Your task to perform on an android device: delete location history Image 0: 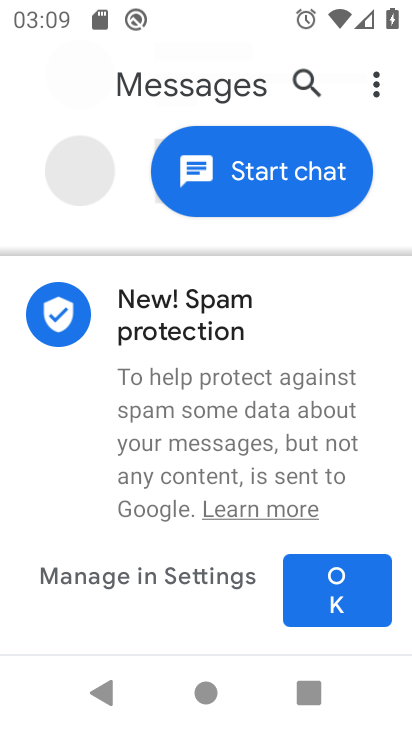
Step 0: press home button
Your task to perform on an android device: delete location history Image 1: 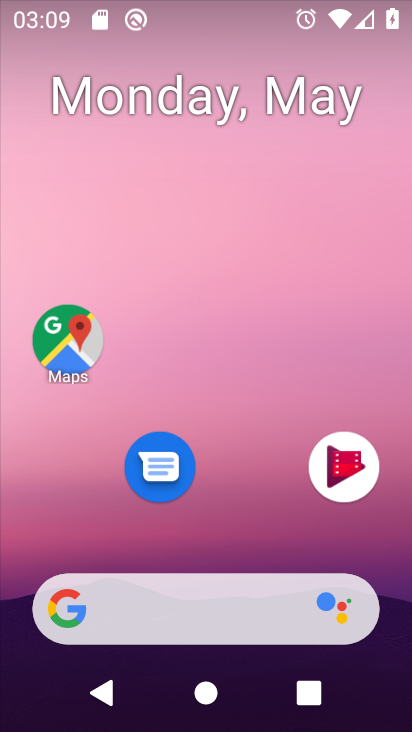
Step 1: drag from (226, 483) to (265, 203)
Your task to perform on an android device: delete location history Image 2: 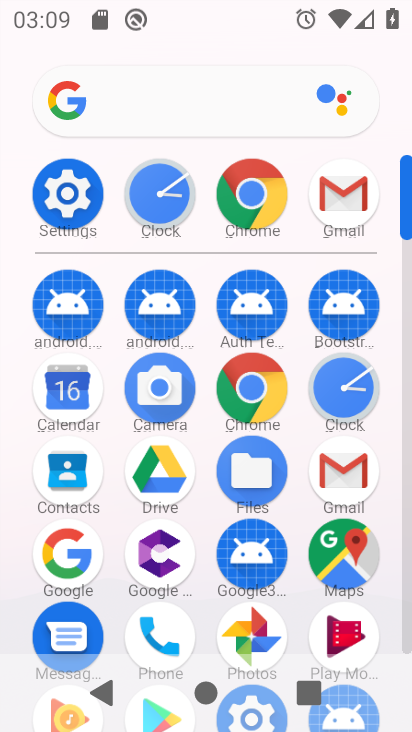
Step 2: click (330, 555)
Your task to perform on an android device: delete location history Image 3: 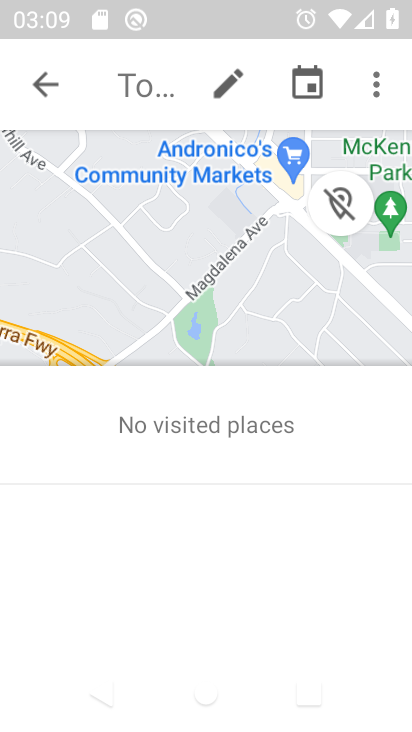
Step 3: click (366, 75)
Your task to perform on an android device: delete location history Image 4: 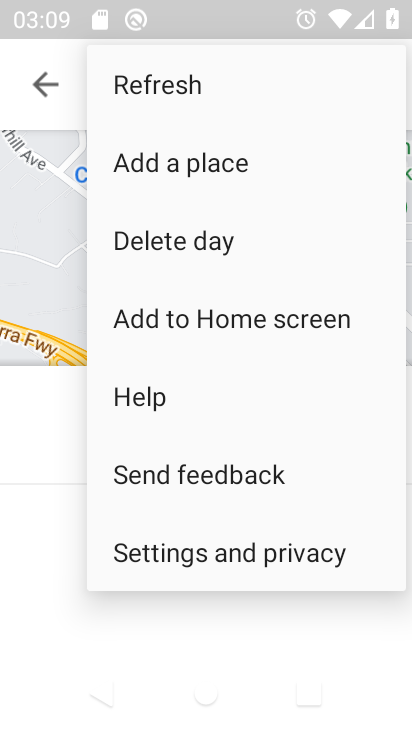
Step 4: click (182, 554)
Your task to perform on an android device: delete location history Image 5: 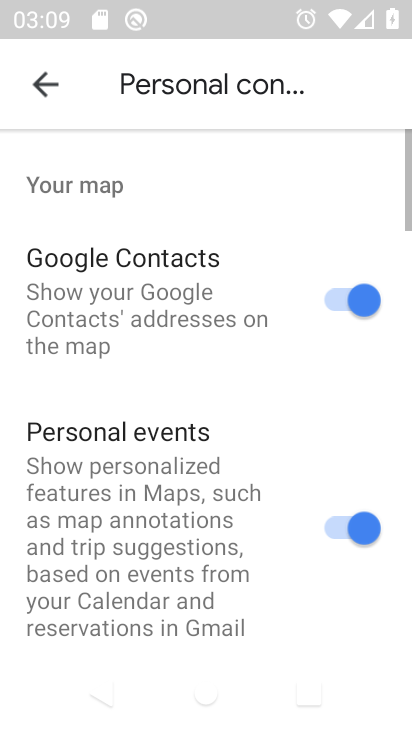
Step 5: drag from (192, 612) to (283, 211)
Your task to perform on an android device: delete location history Image 6: 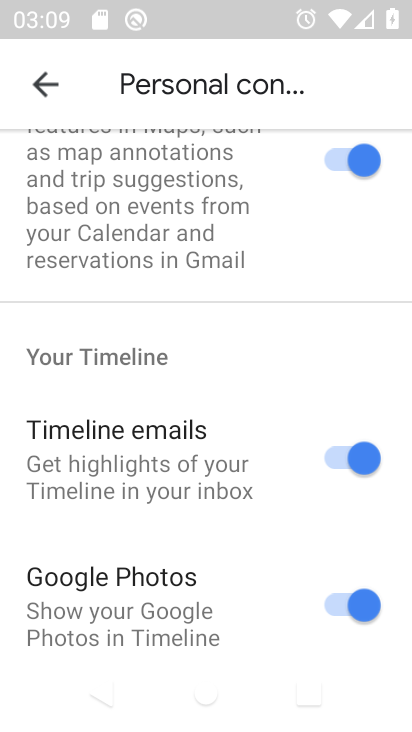
Step 6: drag from (156, 578) to (231, 200)
Your task to perform on an android device: delete location history Image 7: 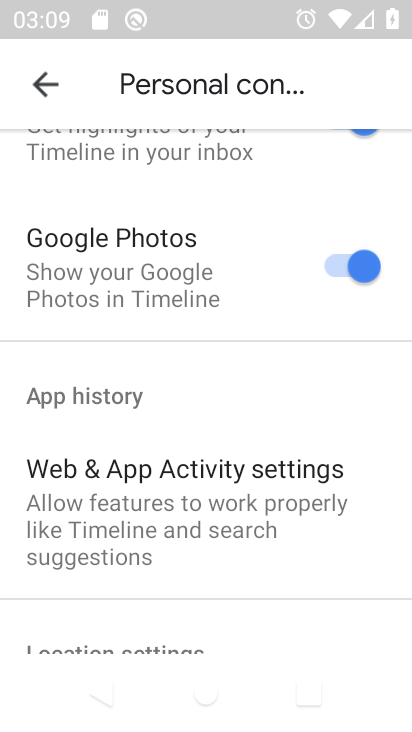
Step 7: drag from (181, 538) to (254, 227)
Your task to perform on an android device: delete location history Image 8: 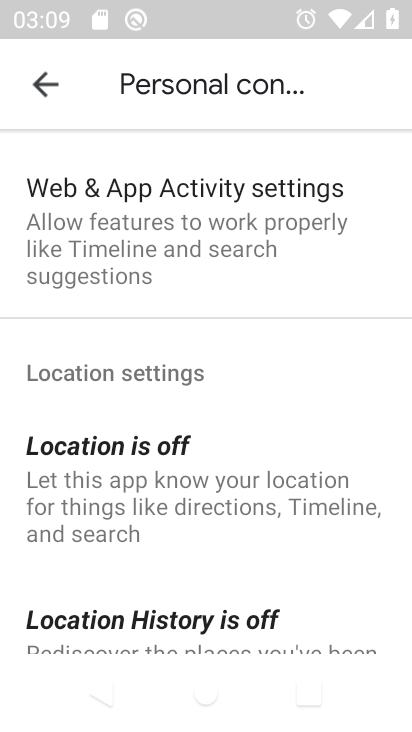
Step 8: click (129, 615)
Your task to perform on an android device: delete location history Image 9: 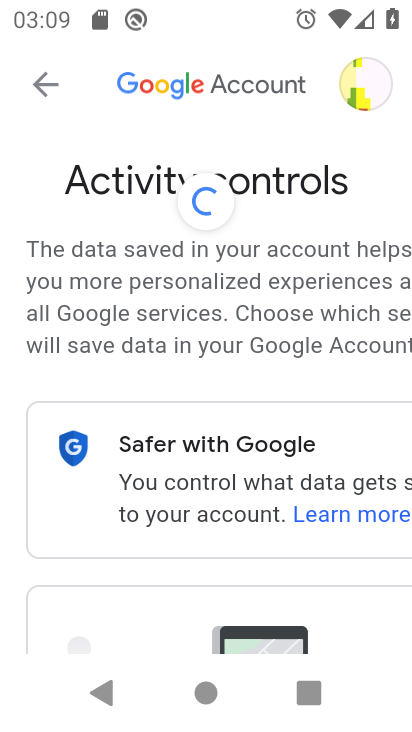
Step 9: drag from (301, 545) to (350, 149)
Your task to perform on an android device: delete location history Image 10: 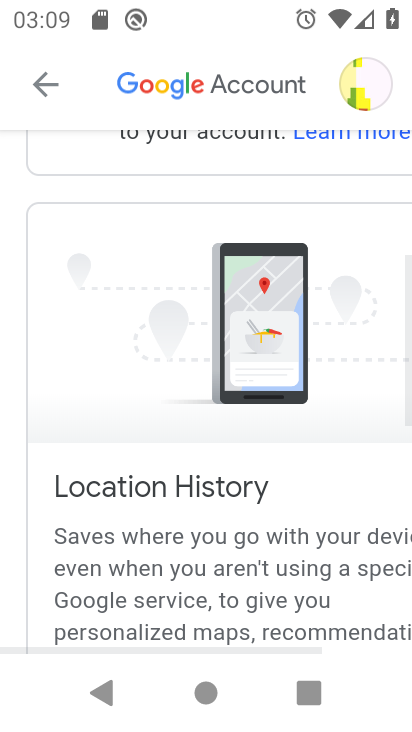
Step 10: drag from (242, 618) to (300, 219)
Your task to perform on an android device: delete location history Image 11: 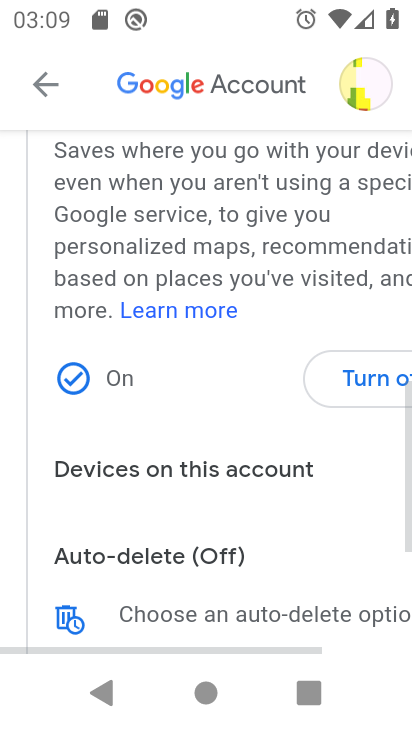
Step 11: drag from (276, 485) to (297, 340)
Your task to perform on an android device: delete location history Image 12: 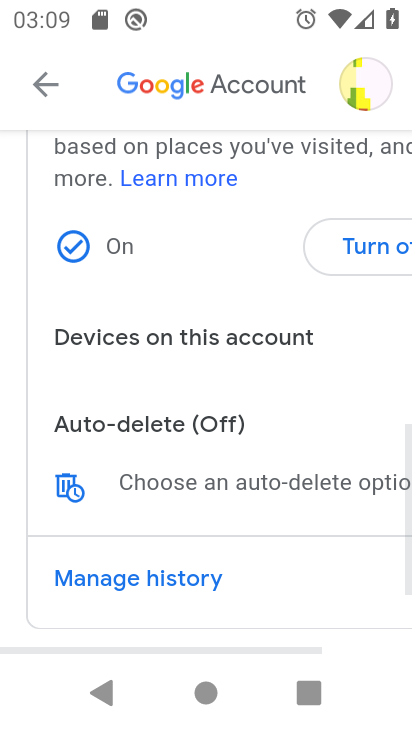
Step 12: click (341, 362)
Your task to perform on an android device: delete location history Image 13: 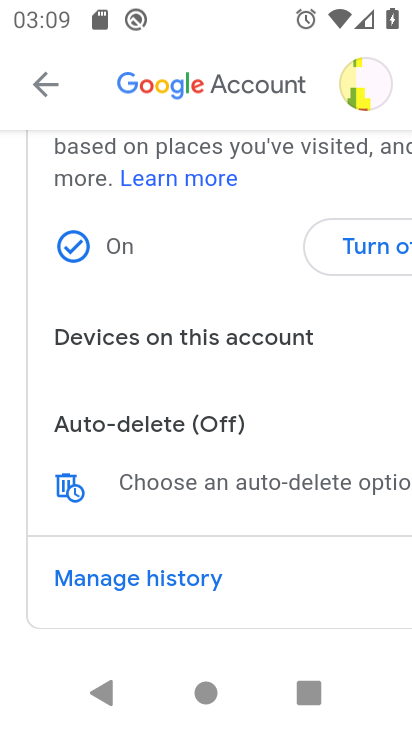
Step 13: click (337, 234)
Your task to perform on an android device: delete location history Image 14: 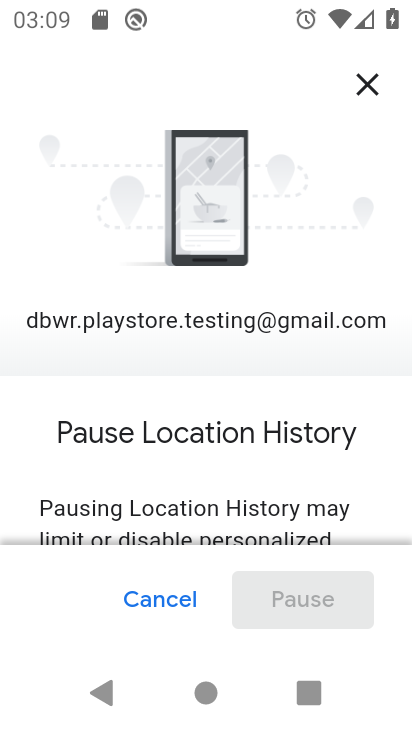
Step 14: click (370, 66)
Your task to perform on an android device: delete location history Image 15: 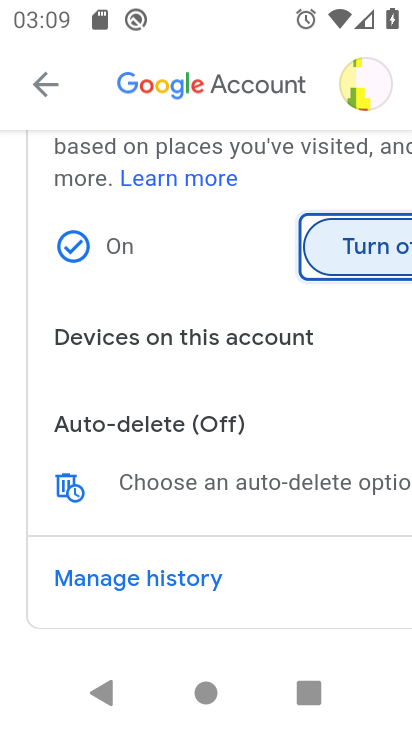
Step 15: click (30, 77)
Your task to perform on an android device: delete location history Image 16: 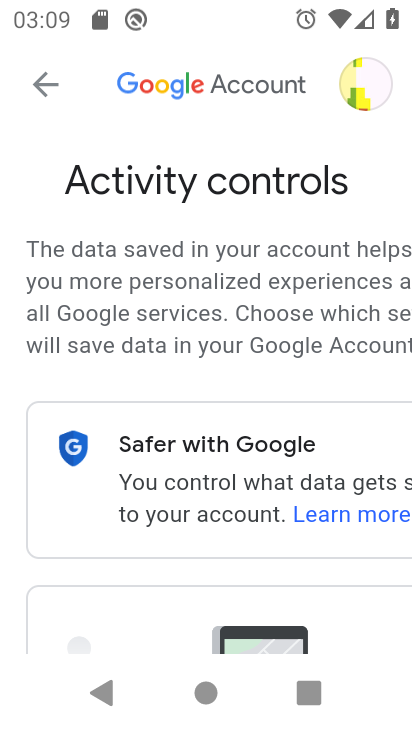
Step 16: click (38, 82)
Your task to perform on an android device: delete location history Image 17: 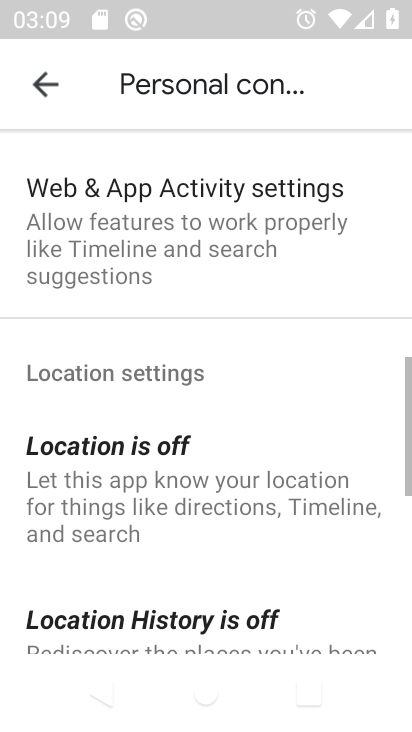
Step 17: drag from (162, 480) to (233, 225)
Your task to perform on an android device: delete location history Image 18: 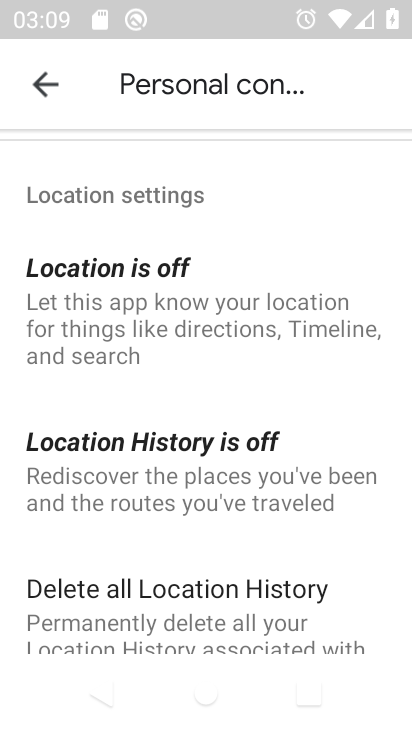
Step 18: click (180, 451)
Your task to perform on an android device: delete location history Image 19: 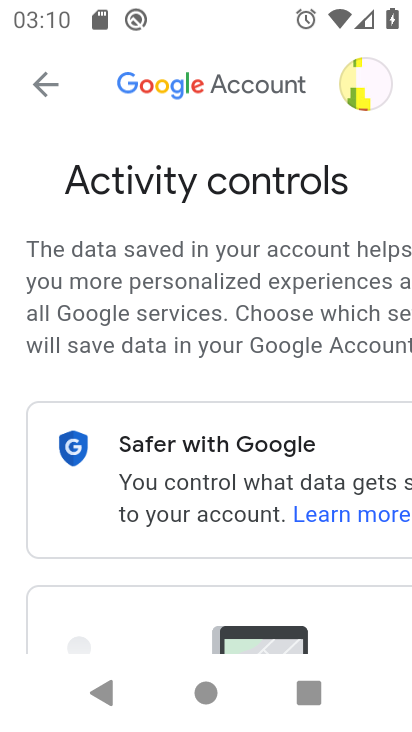
Step 19: drag from (280, 566) to (302, 215)
Your task to perform on an android device: delete location history Image 20: 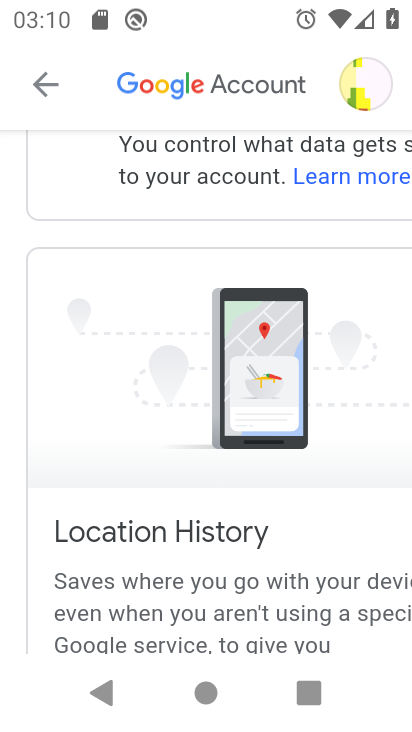
Step 20: drag from (266, 548) to (267, 130)
Your task to perform on an android device: delete location history Image 21: 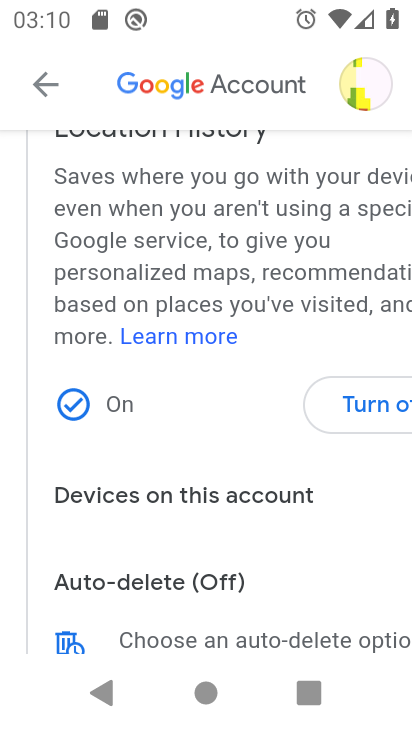
Step 21: click (333, 392)
Your task to perform on an android device: delete location history Image 22: 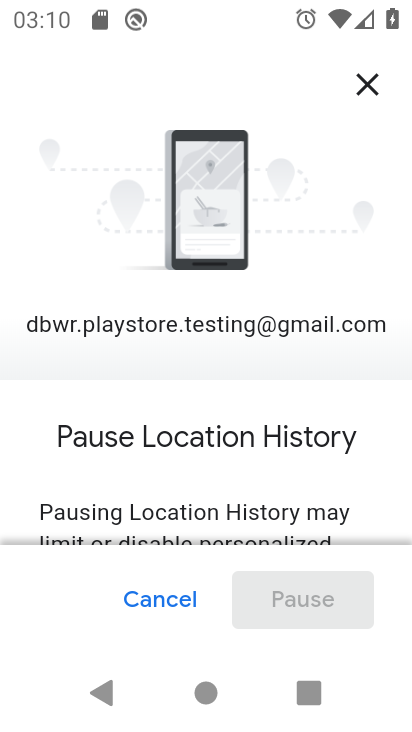
Step 22: click (187, 591)
Your task to perform on an android device: delete location history Image 23: 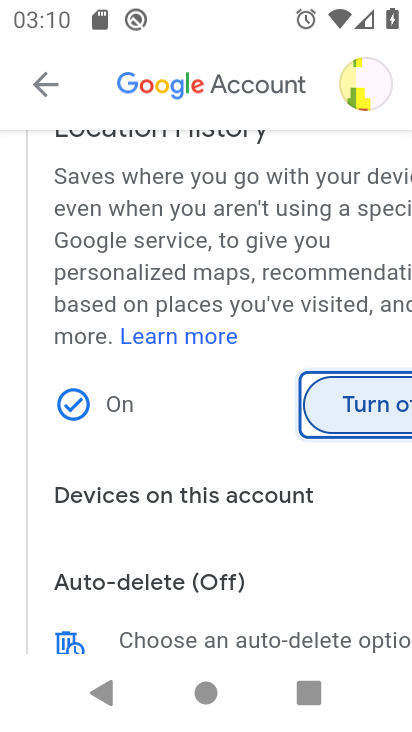
Step 23: task complete